Your task to perform on an android device: allow notifications from all sites in the chrome app Image 0: 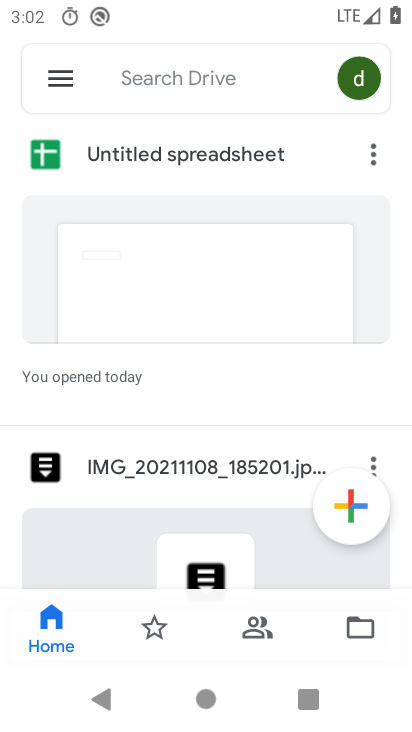
Step 0: press home button
Your task to perform on an android device: allow notifications from all sites in the chrome app Image 1: 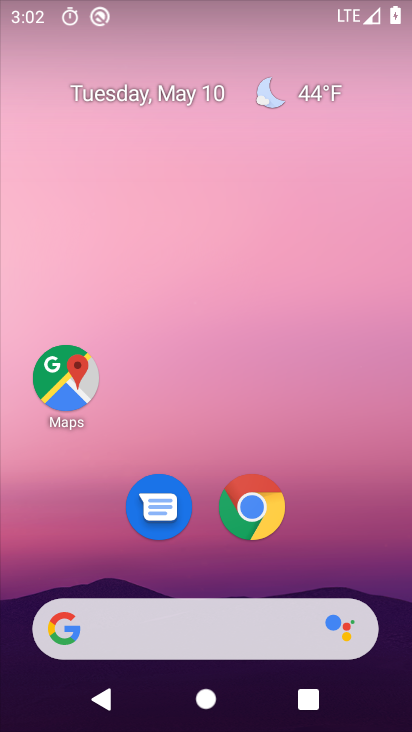
Step 1: click (233, 510)
Your task to perform on an android device: allow notifications from all sites in the chrome app Image 2: 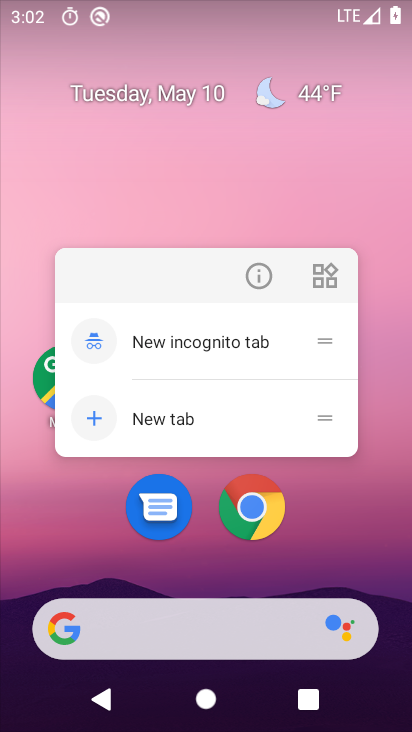
Step 2: click (261, 501)
Your task to perform on an android device: allow notifications from all sites in the chrome app Image 3: 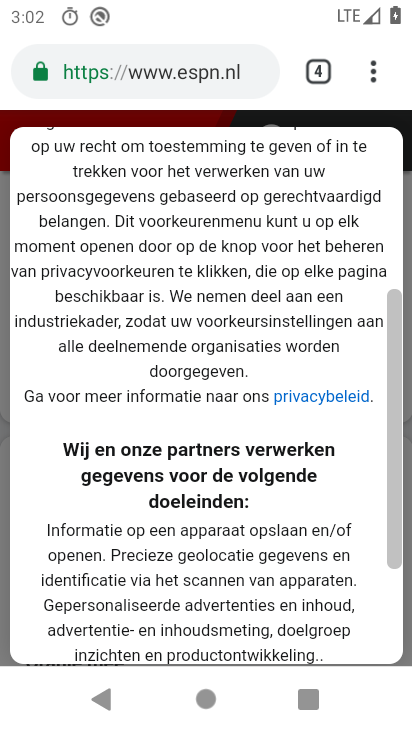
Step 3: click (376, 69)
Your task to perform on an android device: allow notifications from all sites in the chrome app Image 4: 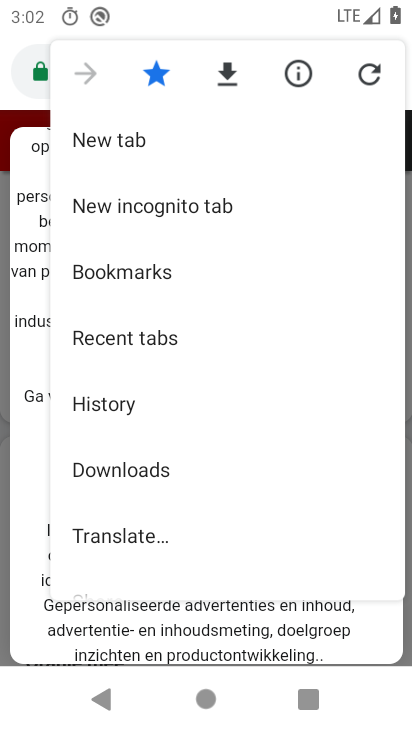
Step 4: drag from (138, 547) to (115, 235)
Your task to perform on an android device: allow notifications from all sites in the chrome app Image 5: 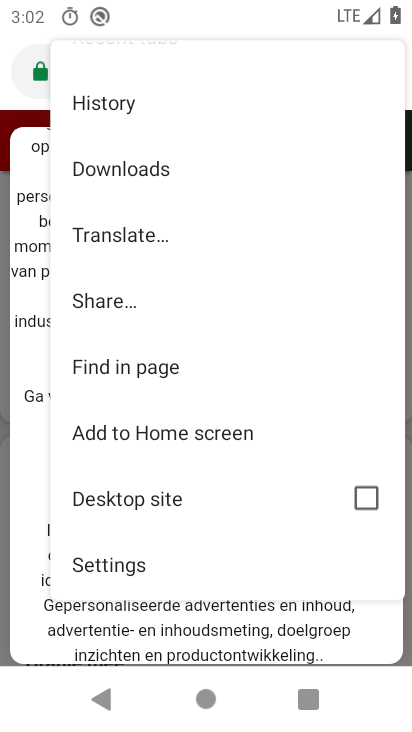
Step 5: click (124, 567)
Your task to perform on an android device: allow notifications from all sites in the chrome app Image 6: 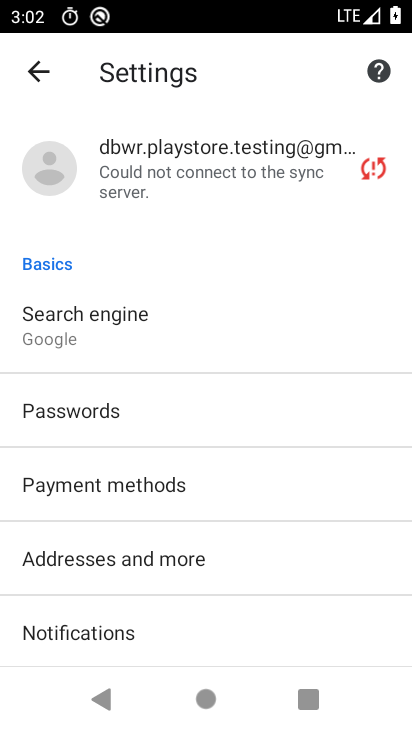
Step 6: drag from (78, 636) to (118, 374)
Your task to perform on an android device: allow notifications from all sites in the chrome app Image 7: 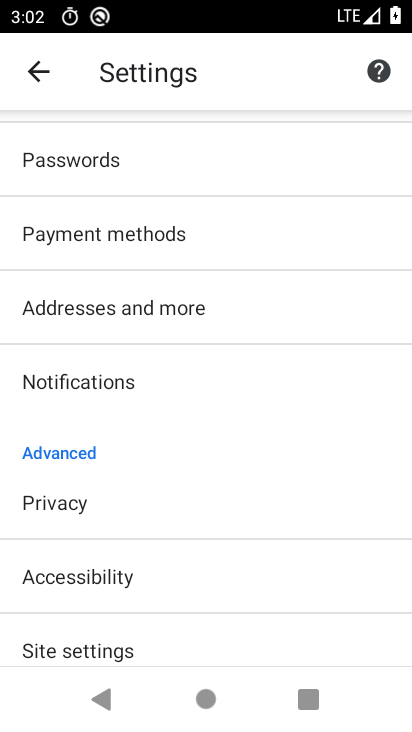
Step 7: click (114, 644)
Your task to perform on an android device: allow notifications from all sites in the chrome app Image 8: 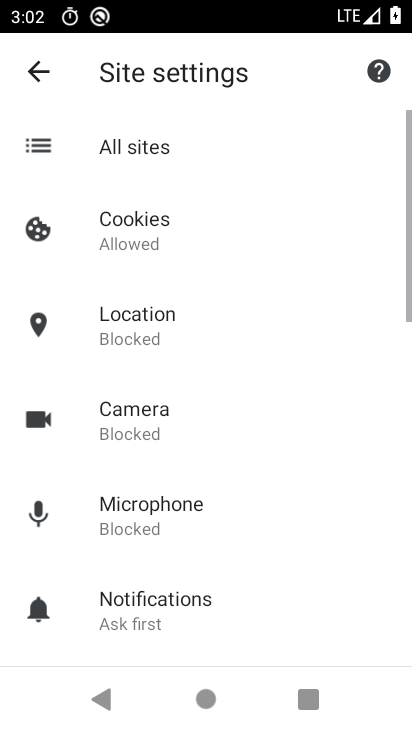
Step 8: click (138, 610)
Your task to perform on an android device: allow notifications from all sites in the chrome app Image 9: 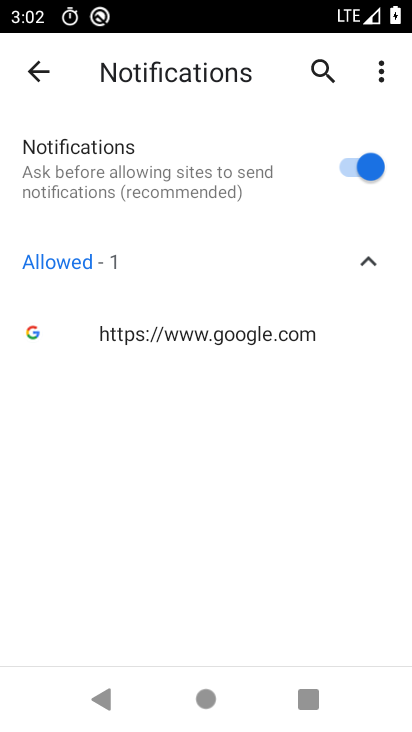
Step 9: task complete